Your task to perform on an android device: check android version Image 0: 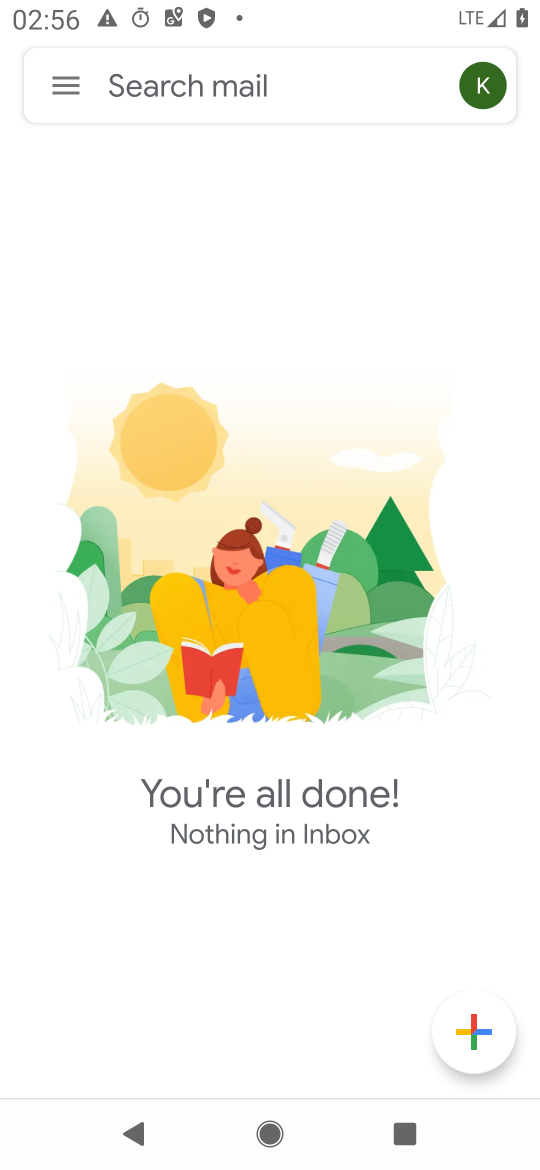
Step 0: press home button
Your task to perform on an android device: check android version Image 1: 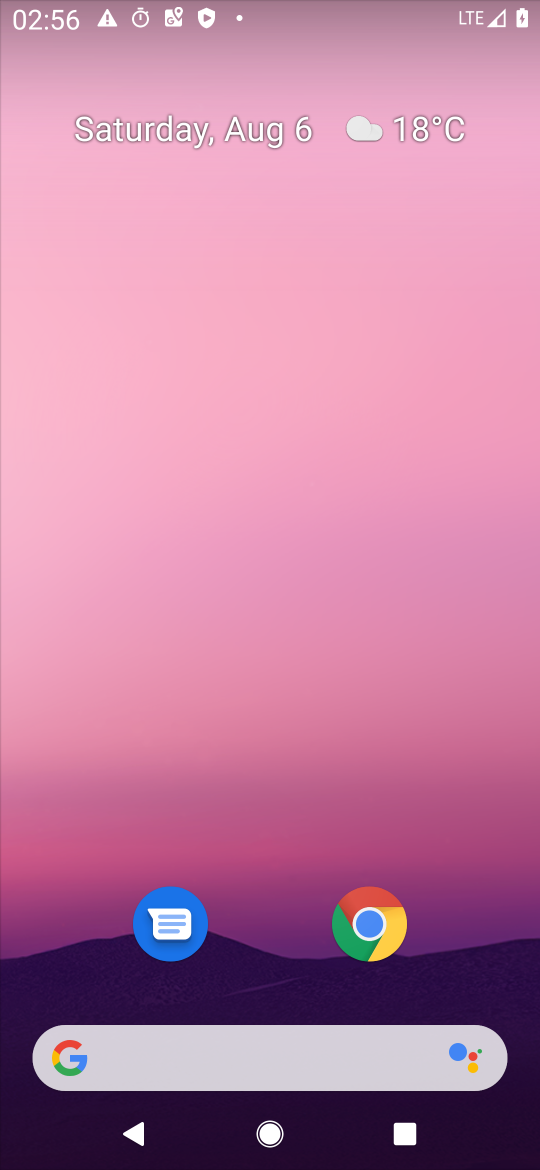
Step 1: drag from (247, 1038) to (330, 3)
Your task to perform on an android device: check android version Image 2: 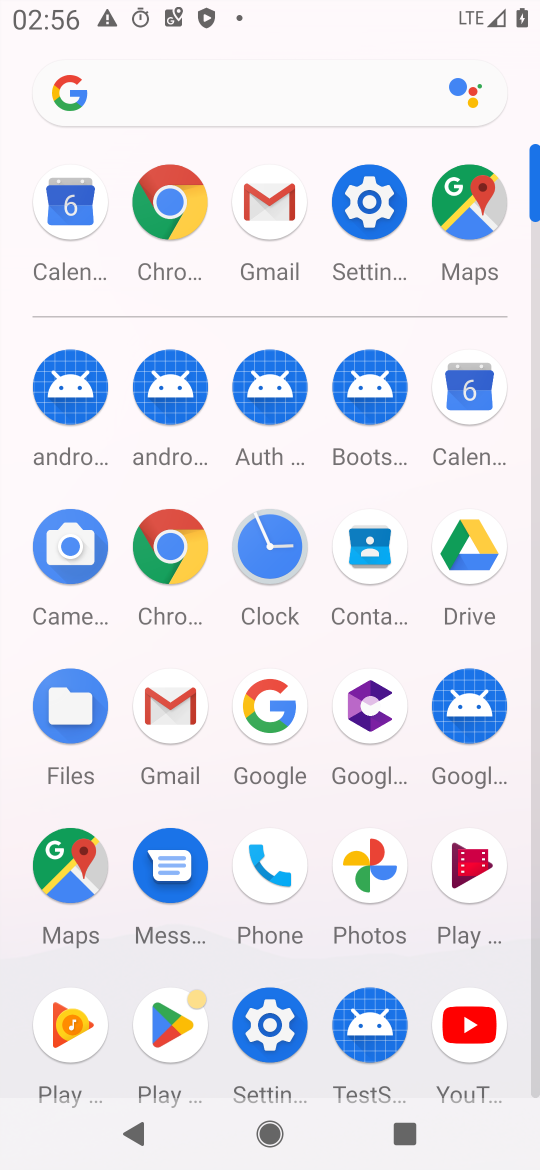
Step 2: click (383, 190)
Your task to perform on an android device: check android version Image 3: 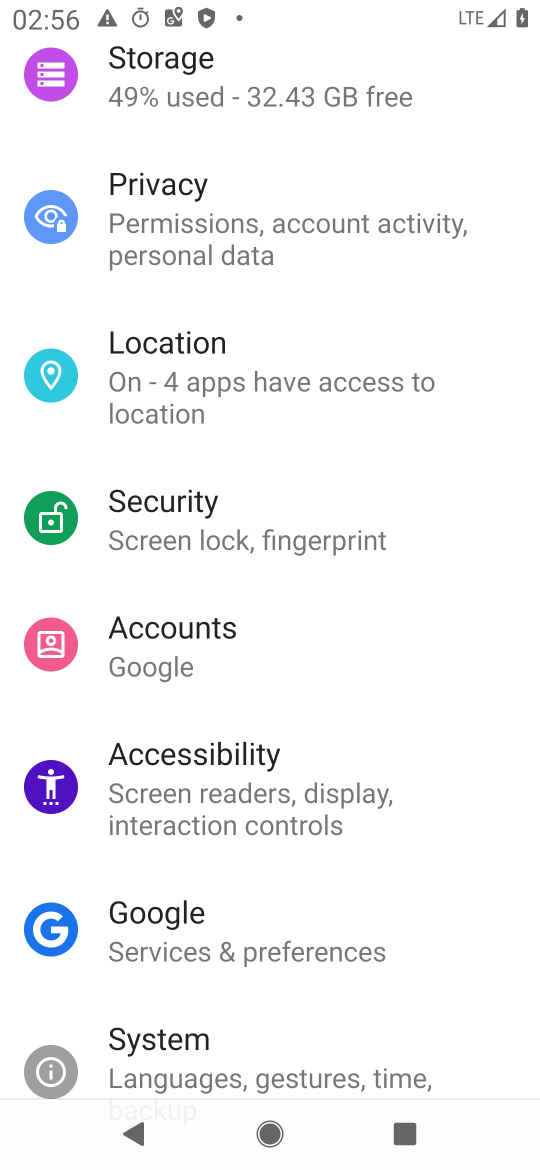
Step 3: drag from (282, 1038) to (369, 216)
Your task to perform on an android device: check android version Image 4: 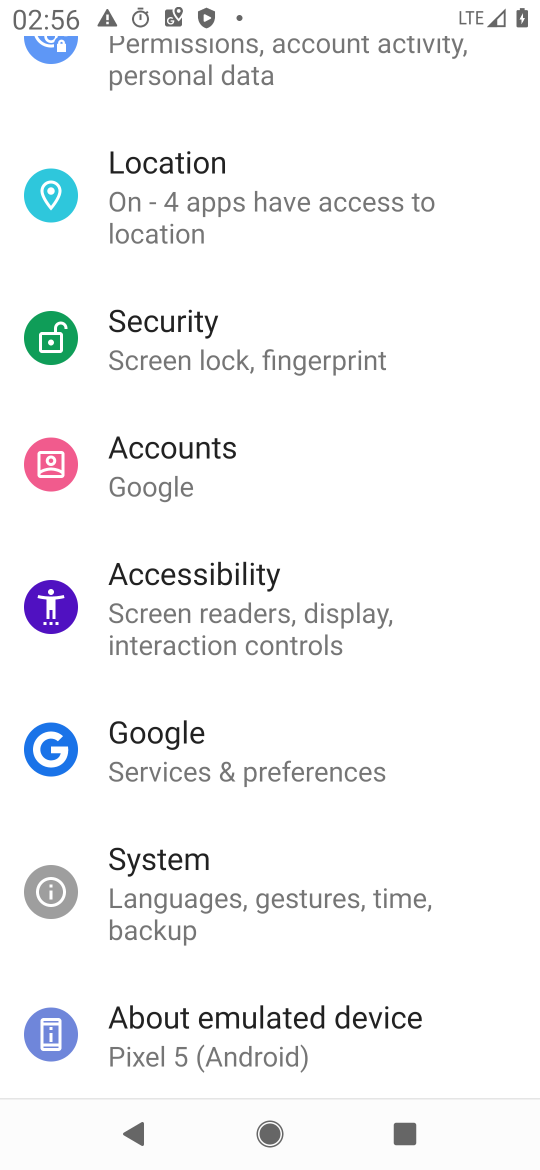
Step 4: click (363, 1040)
Your task to perform on an android device: check android version Image 5: 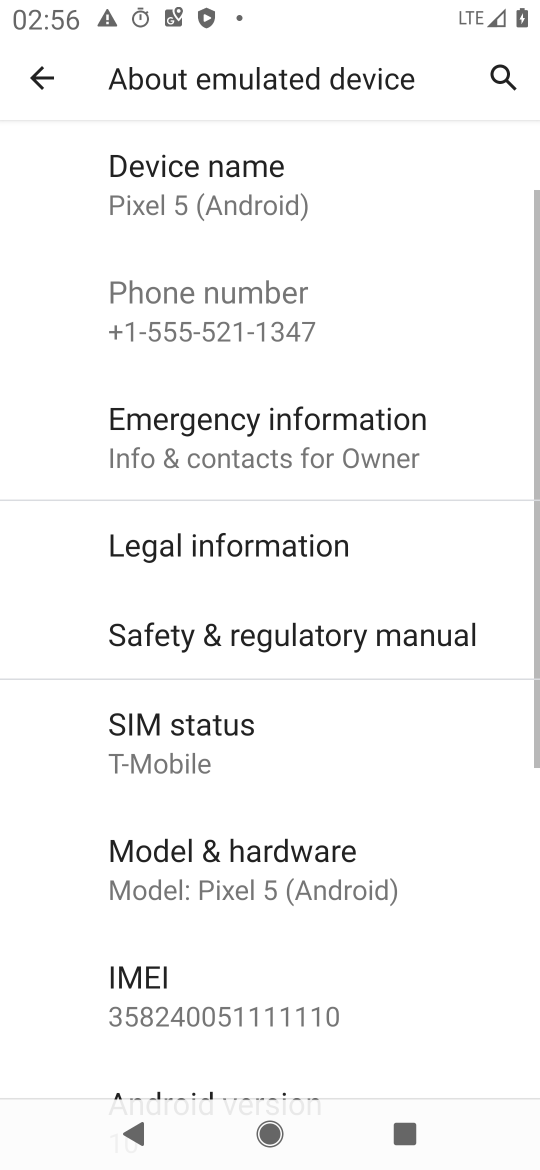
Step 5: drag from (435, 1017) to (473, 483)
Your task to perform on an android device: check android version Image 6: 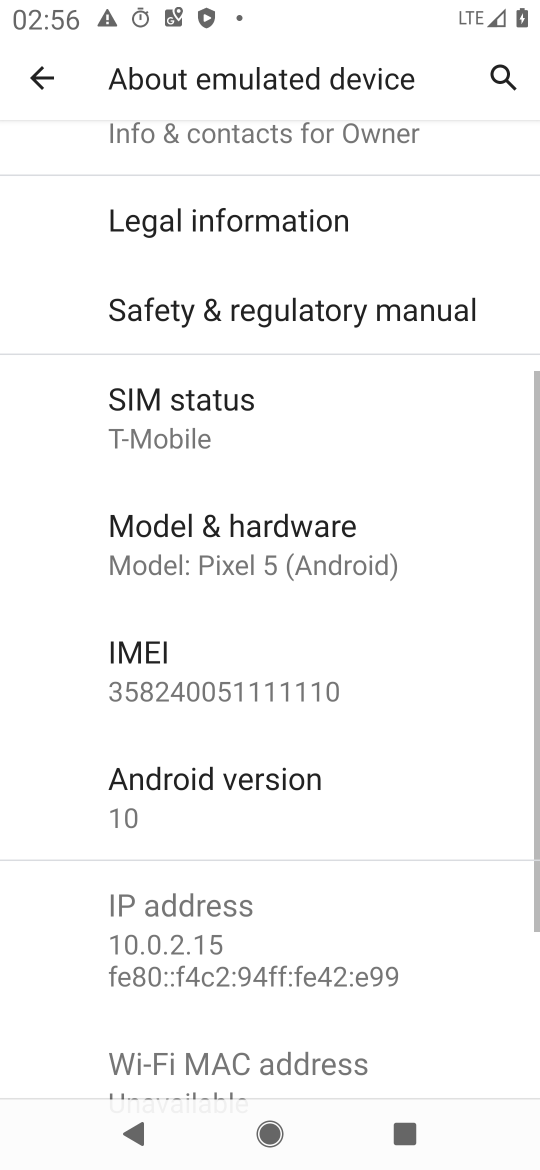
Step 6: click (264, 784)
Your task to perform on an android device: check android version Image 7: 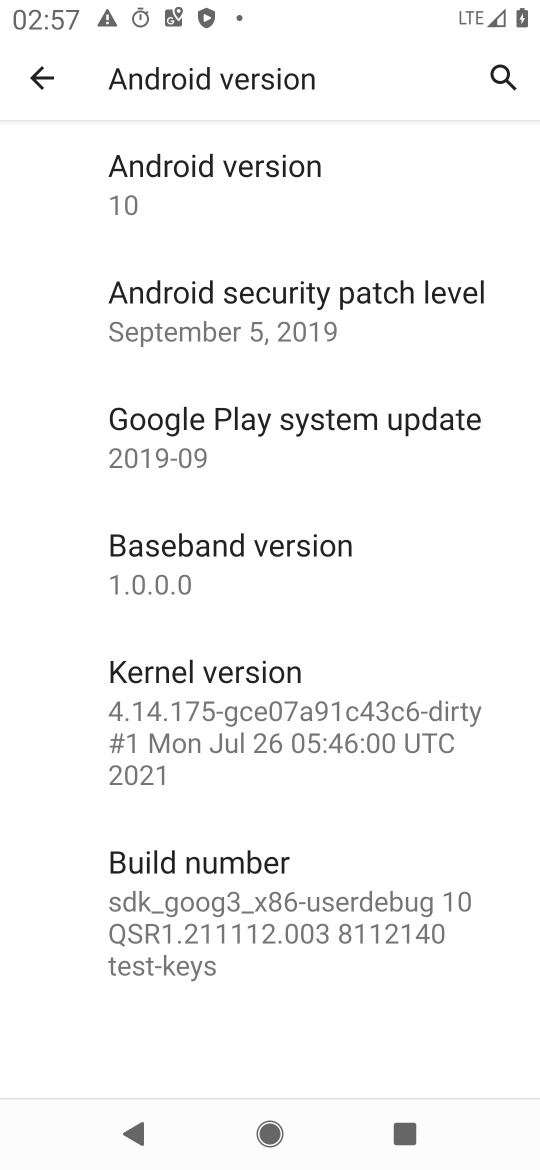
Step 7: task complete